Your task to perform on an android device: delete a single message in the gmail app Image 0: 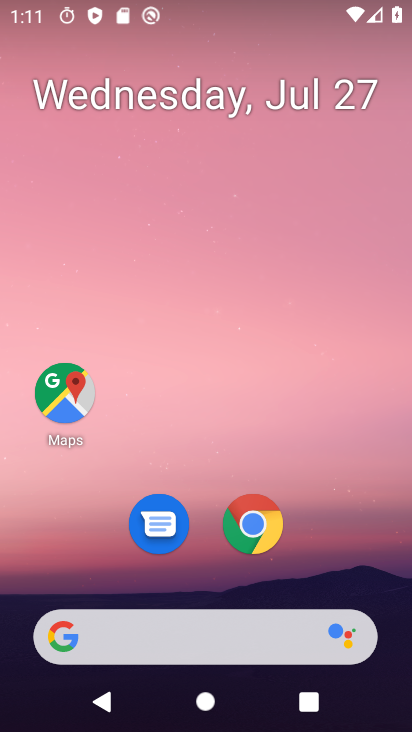
Step 0: drag from (334, 519) to (339, 94)
Your task to perform on an android device: delete a single message in the gmail app Image 1: 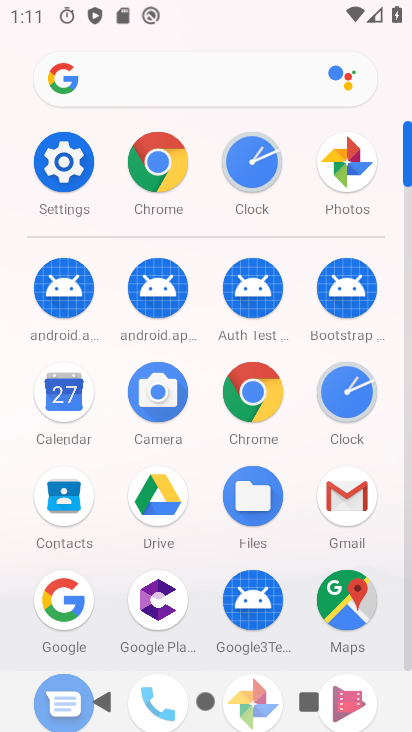
Step 1: click (352, 493)
Your task to perform on an android device: delete a single message in the gmail app Image 2: 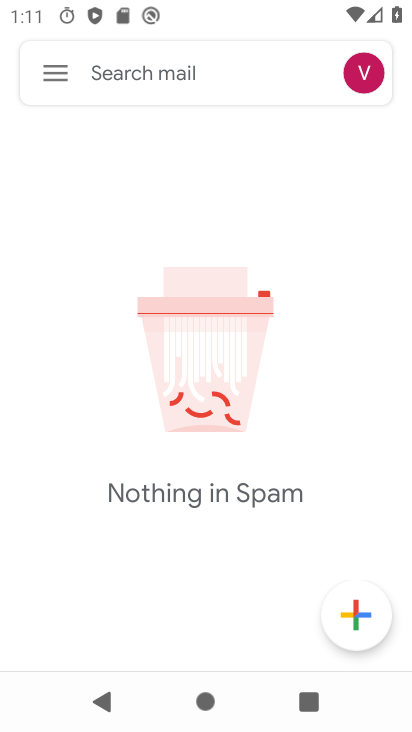
Step 2: click (54, 82)
Your task to perform on an android device: delete a single message in the gmail app Image 3: 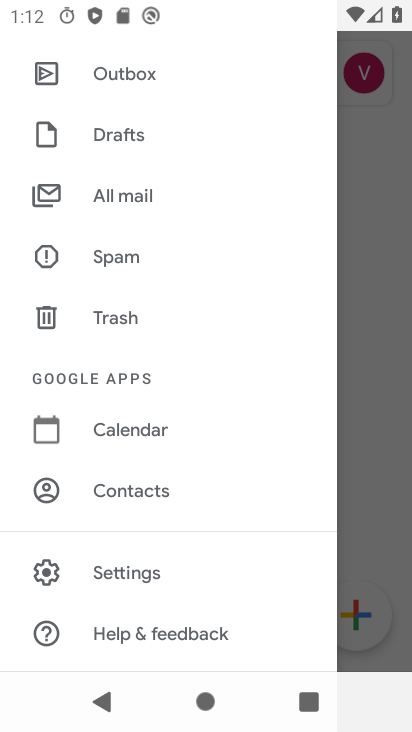
Step 3: click (117, 188)
Your task to perform on an android device: delete a single message in the gmail app Image 4: 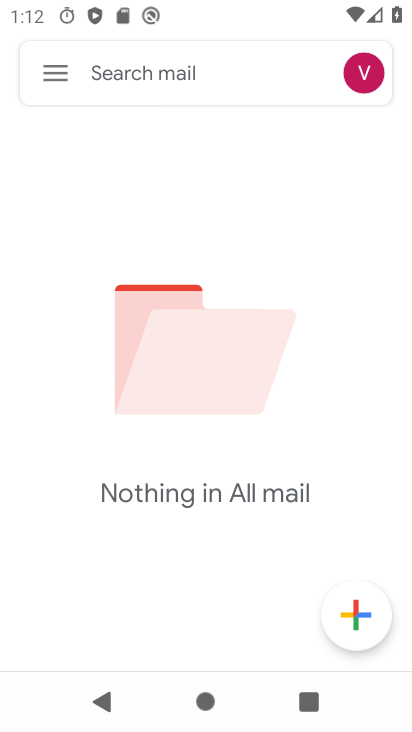
Step 4: task complete